Your task to perform on an android device: set the timer Image 0: 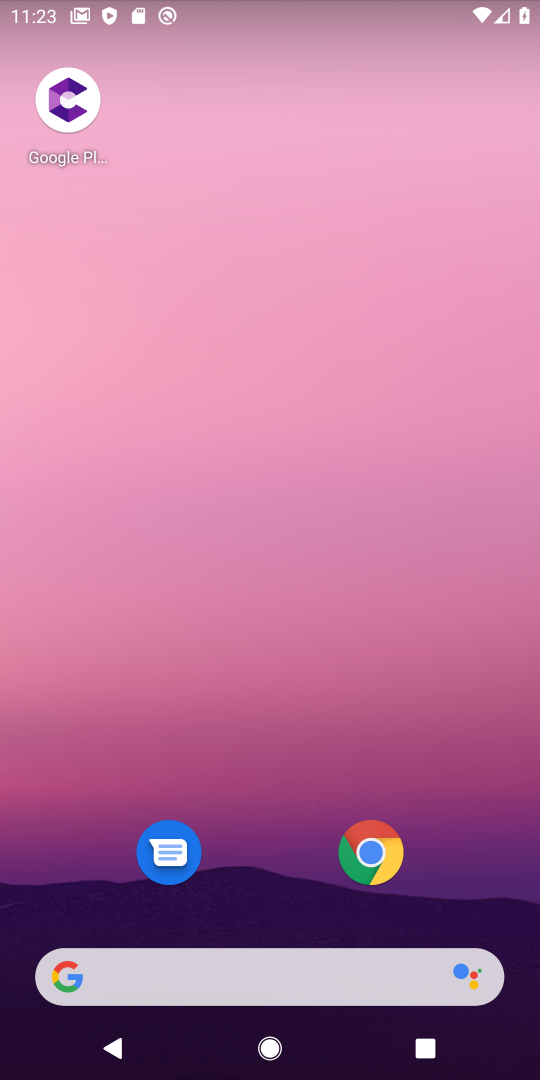
Step 0: drag from (343, 633) to (345, 149)
Your task to perform on an android device: set the timer Image 1: 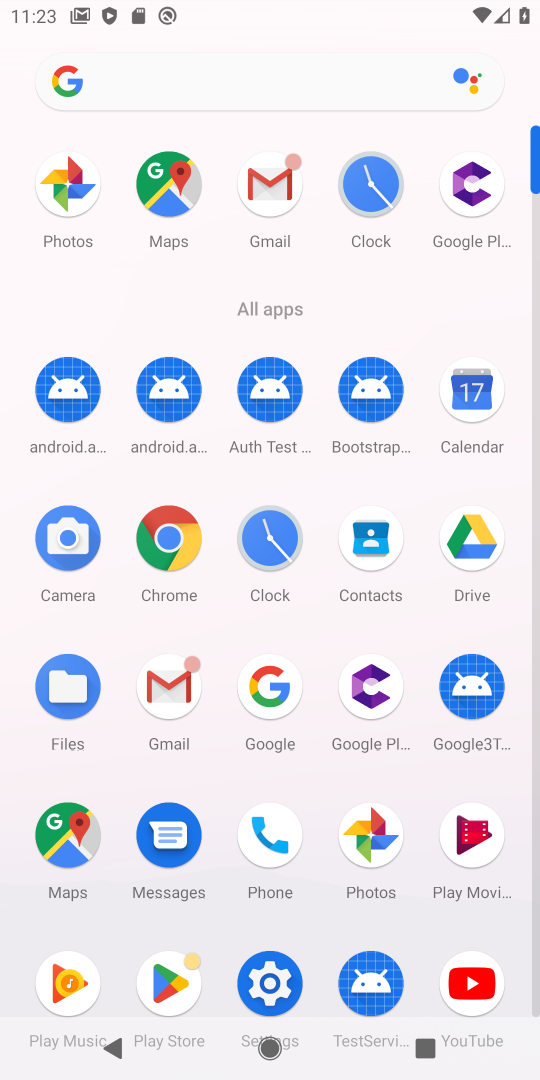
Step 1: task complete